Your task to perform on an android device: Open Google Chrome and open the bookmarks view Image 0: 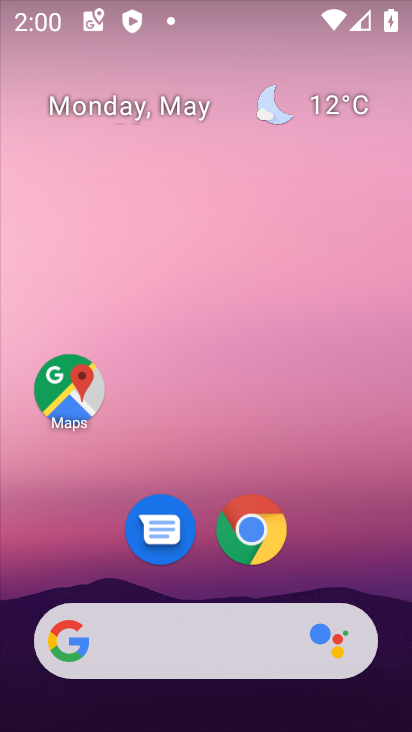
Step 0: click (251, 527)
Your task to perform on an android device: Open Google Chrome and open the bookmarks view Image 1: 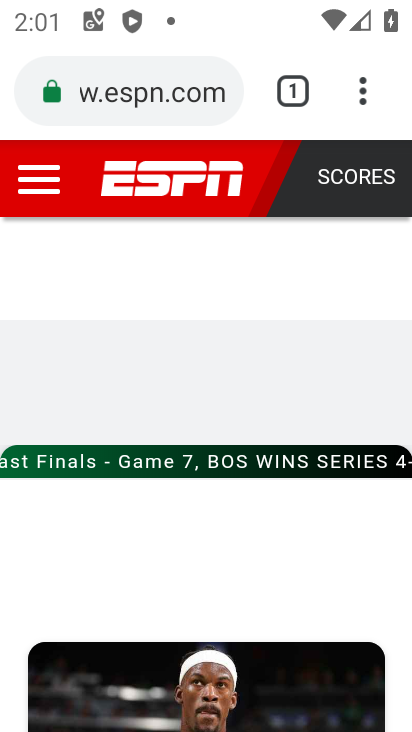
Step 1: click (360, 99)
Your task to perform on an android device: Open Google Chrome and open the bookmarks view Image 2: 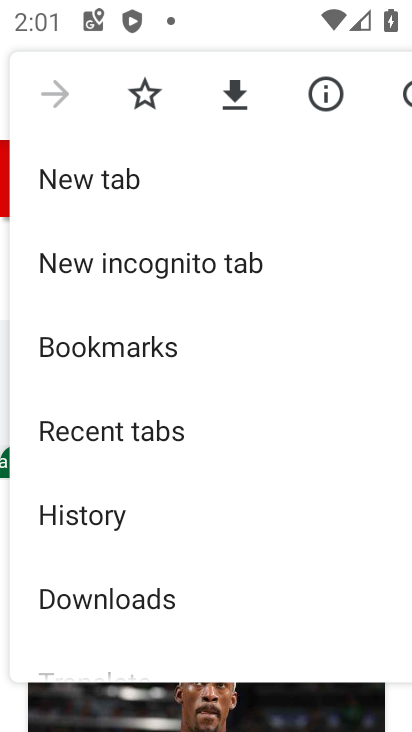
Step 2: drag from (164, 602) to (176, 507)
Your task to perform on an android device: Open Google Chrome and open the bookmarks view Image 3: 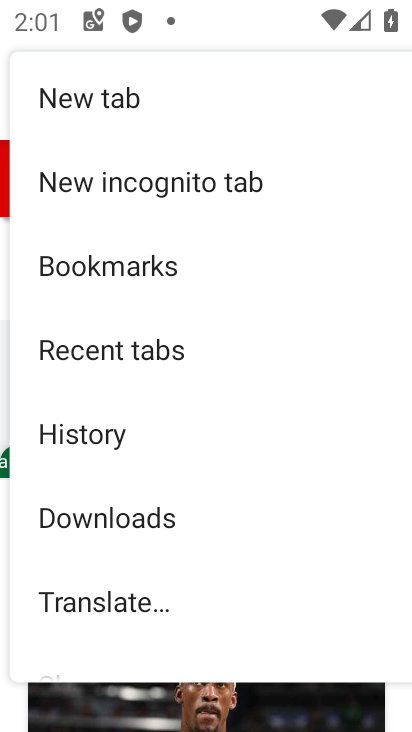
Step 3: click (99, 259)
Your task to perform on an android device: Open Google Chrome and open the bookmarks view Image 4: 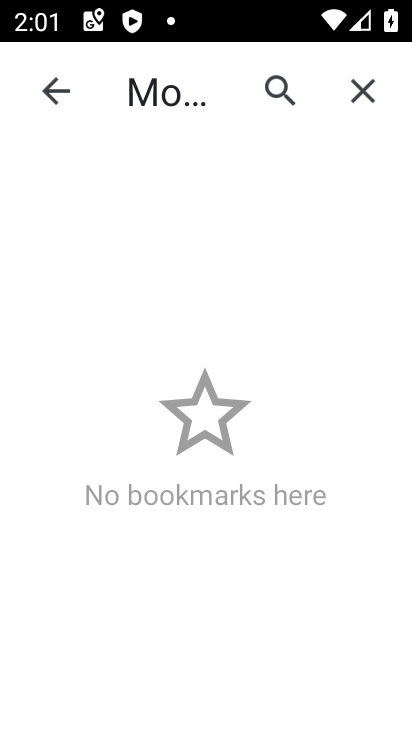
Step 4: task complete